Your task to perform on an android device: change keyboard looks Image 0: 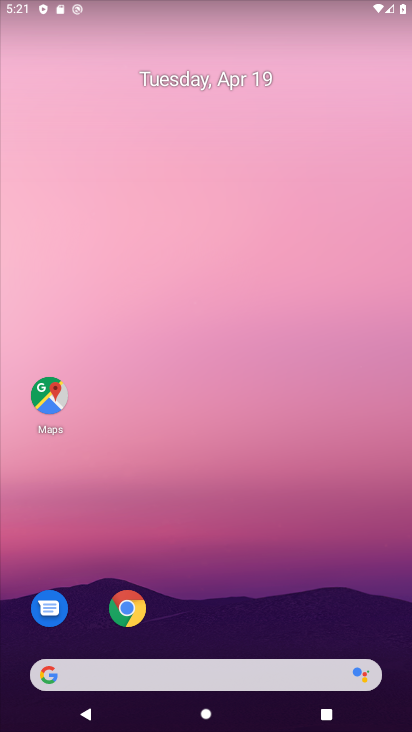
Step 0: drag from (307, 528) to (286, 45)
Your task to perform on an android device: change keyboard looks Image 1: 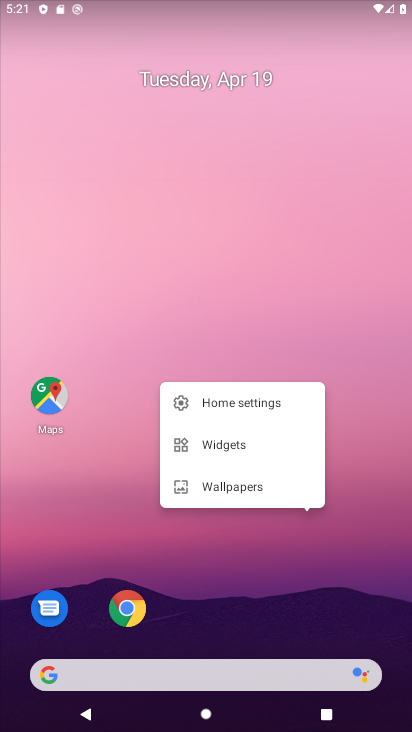
Step 1: click (269, 277)
Your task to perform on an android device: change keyboard looks Image 2: 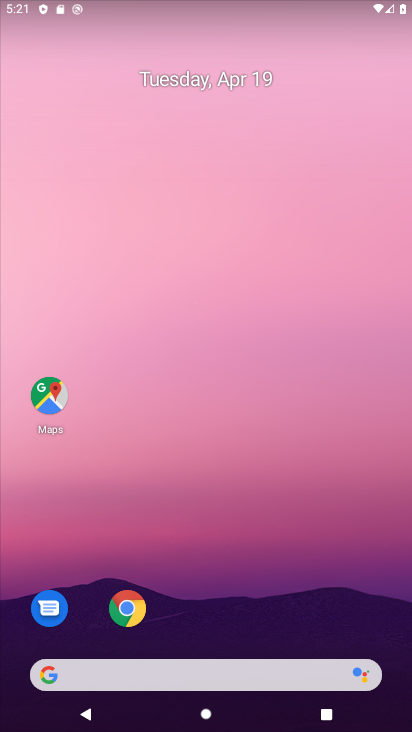
Step 2: drag from (355, 593) to (340, 13)
Your task to perform on an android device: change keyboard looks Image 3: 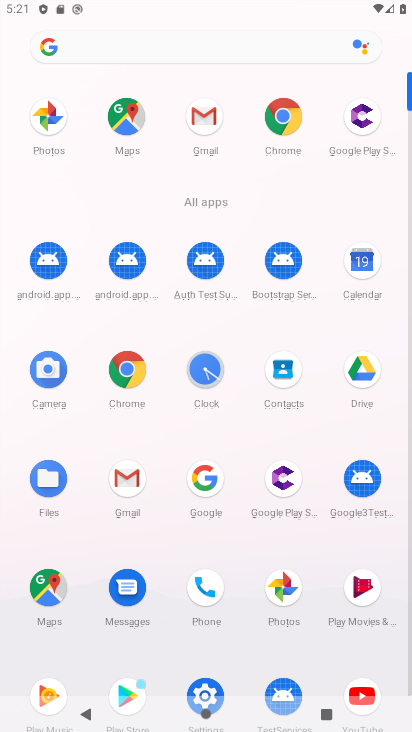
Step 3: click (202, 684)
Your task to perform on an android device: change keyboard looks Image 4: 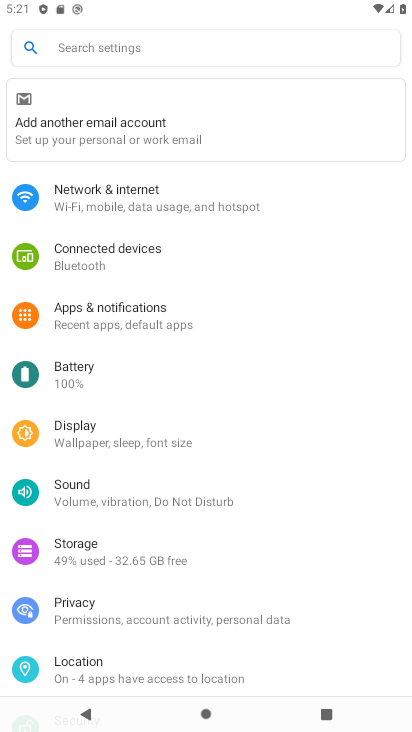
Step 4: drag from (223, 540) to (227, 237)
Your task to perform on an android device: change keyboard looks Image 5: 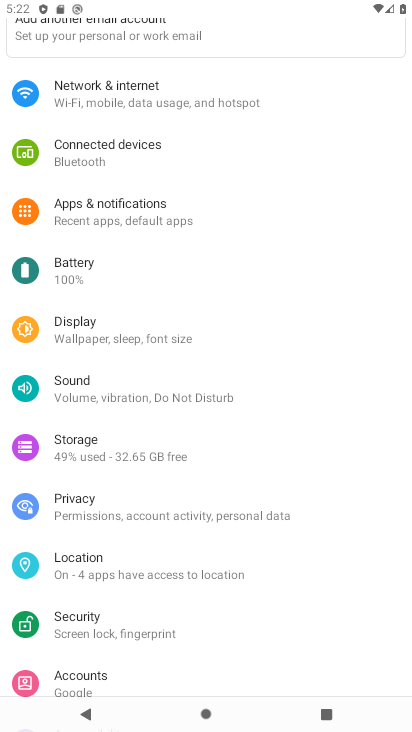
Step 5: drag from (132, 654) to (103, 242)
Your task to perform on an android device: change keyboard looks Image 6: 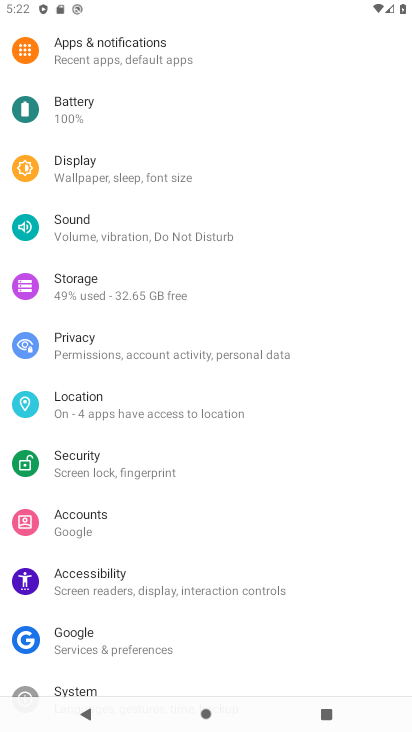
Step 6: drag from (224, 723) to (183, 243)
Your task to perform on an android device: change keyboard looks Image 7: 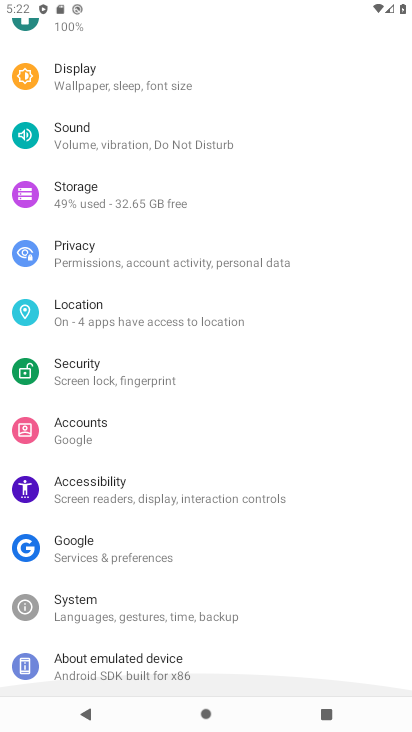
Step 7: drag from (215, 550) to (206, 131)
Your task to perform on an android device: change keyboard looks Image 8: 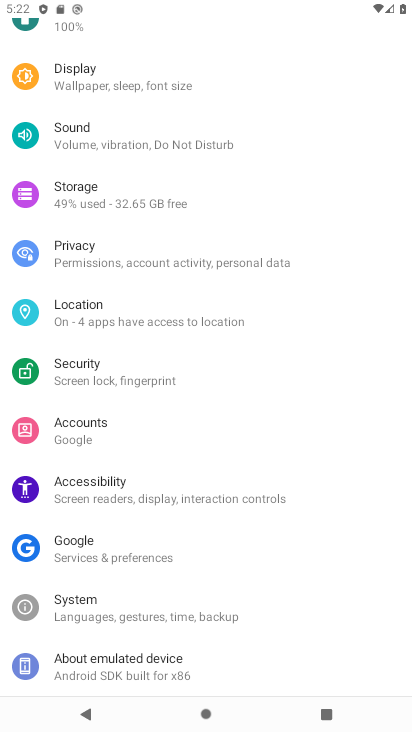
Step 8: click (103, 654)
Your task to perform on an android device: change keyboard looks Image 9: 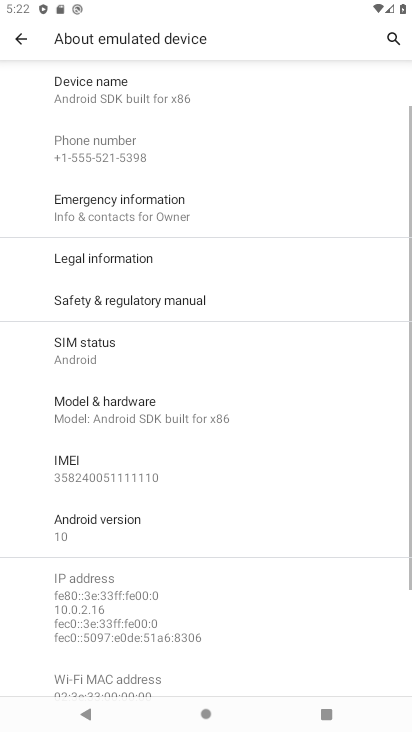
Step 9: drag from (253, 639) to (225, 439)
Your task to perform on an android device: change keyboard looks Image 10: 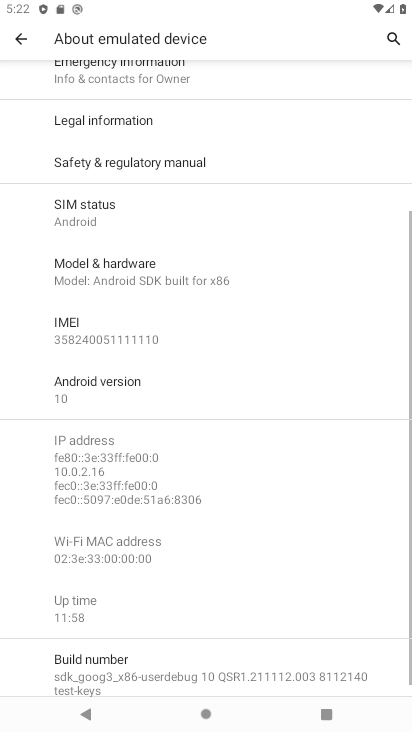
Step 10: click (16, 43)
Your task to perform on an android device: change keyboard looks Image 11: 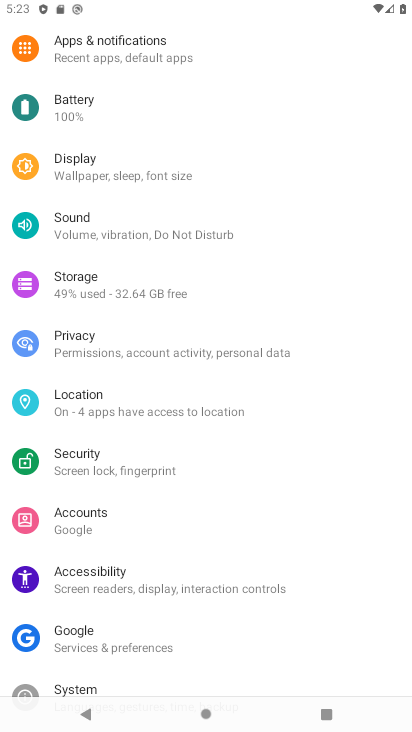
Step 11: drag from (188, 625) to (202, 311)
Your task to perform on an android device: change keyboard looks Image 12: 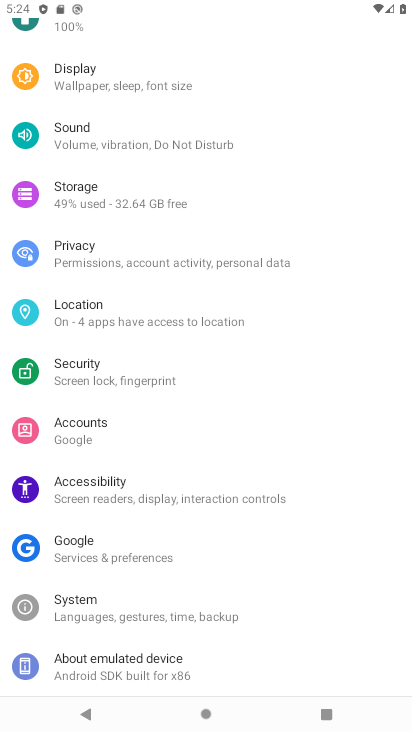
Step 12: click (132, 612)
Your task to perform on an android device: change keyboard looks Image 13: 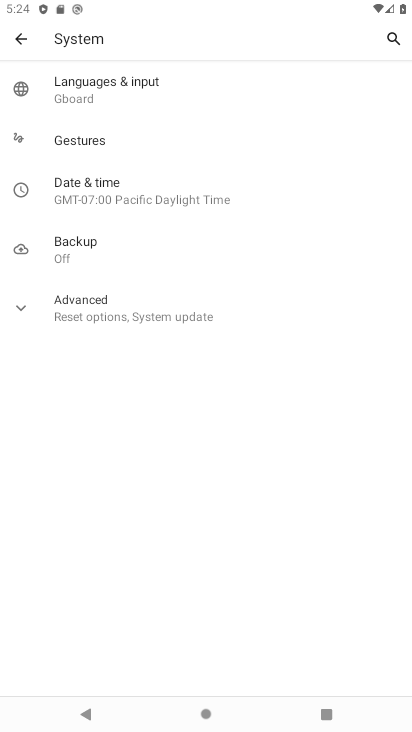
Step 13: click (179, 93)
Your task to perform on an android device: change keyboard looks Image 14: 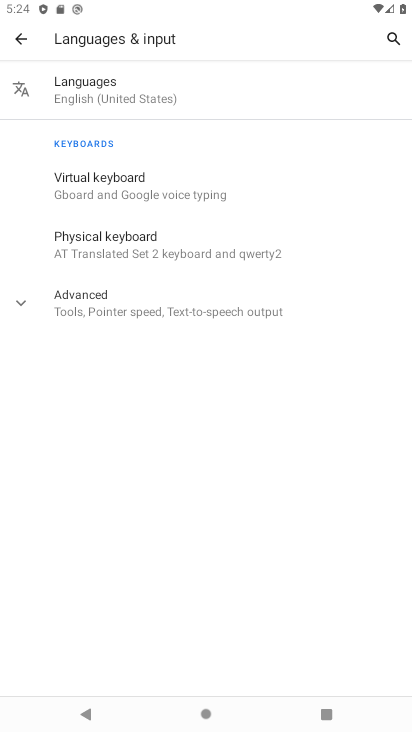
Step 14: click (175, 190)
Your task to perform on an android device: change keyboard looks Image 15: 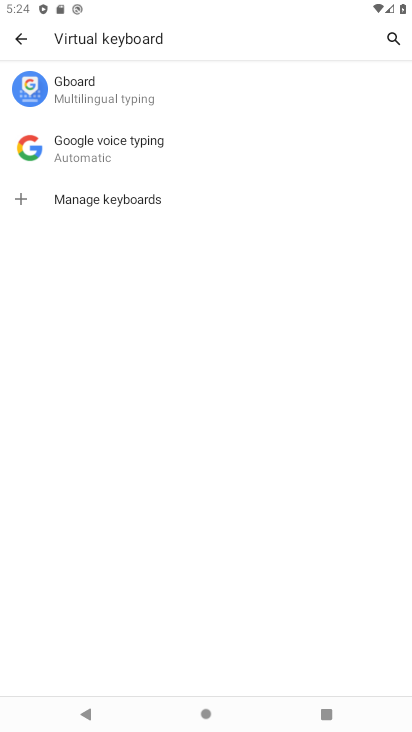
Step 15: click (66, 99)
Your task to perform on an android device: change keyboard looks Image 16: 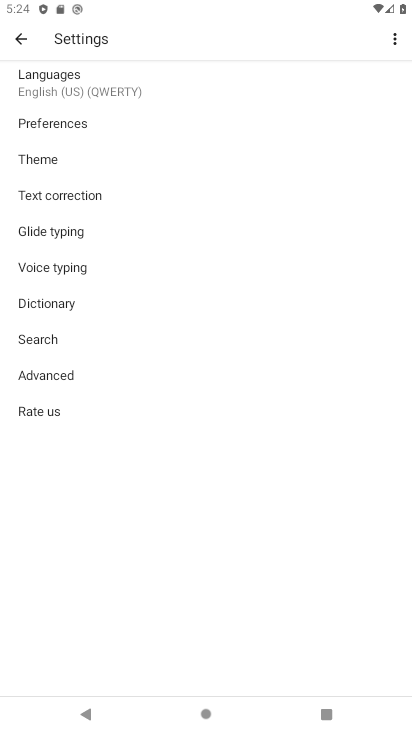
Step 16: click (85, 159)
Your task to perform on an android device: change keyboard looks Image 17: 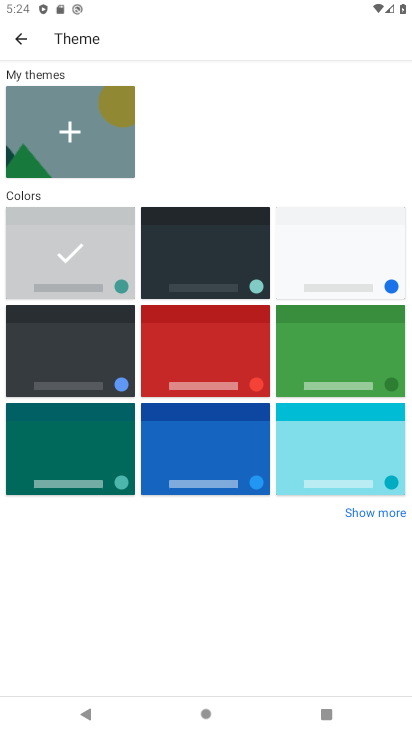
Step 17: click (121, 383)
Your task to perform on an android device: change keyboard looks Image 18: 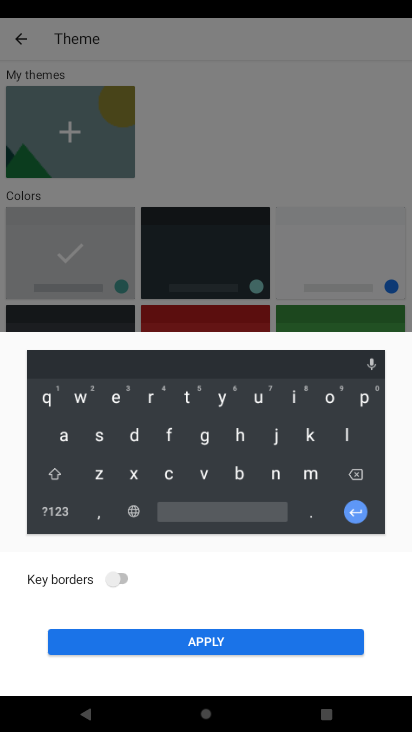
Step 18: task complete